Your task to perform on an android device: turn vacation reply on in the gmail app Image 0: 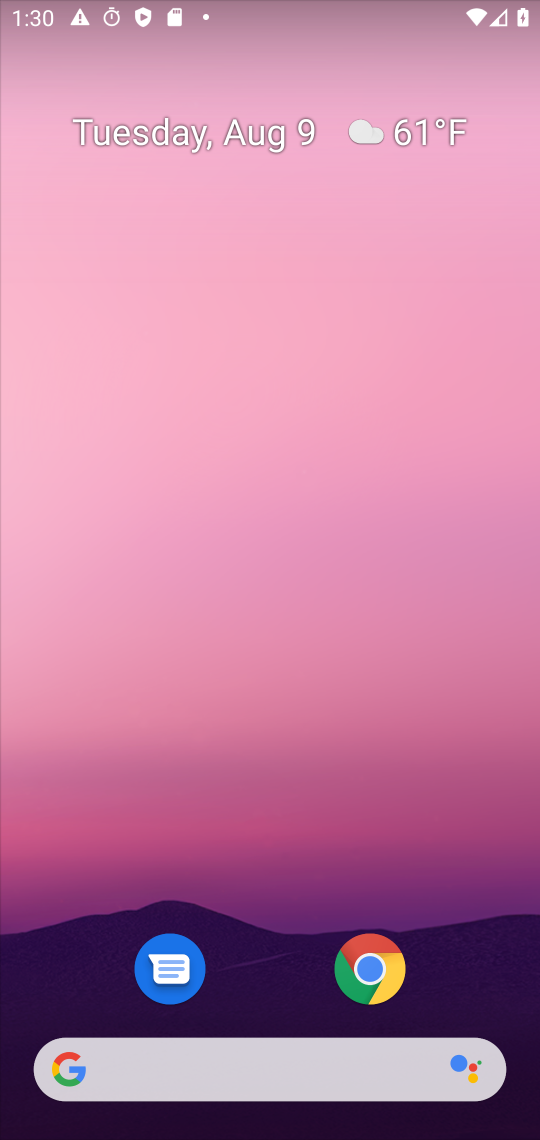
Step 0: press home button
Your task to perform on an android device: turn vacation reply on in the gmail app Image 1: 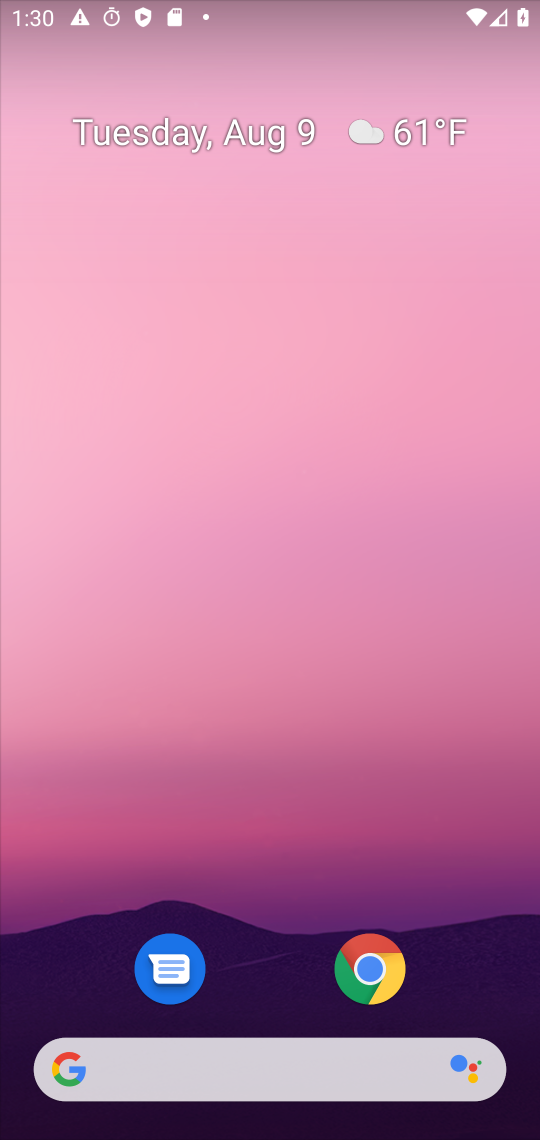
Step 1: drag from (328, 1101) to (188, 505)
Your task to perform on an android device: turn vacation reply on in the gmail app Image 2: 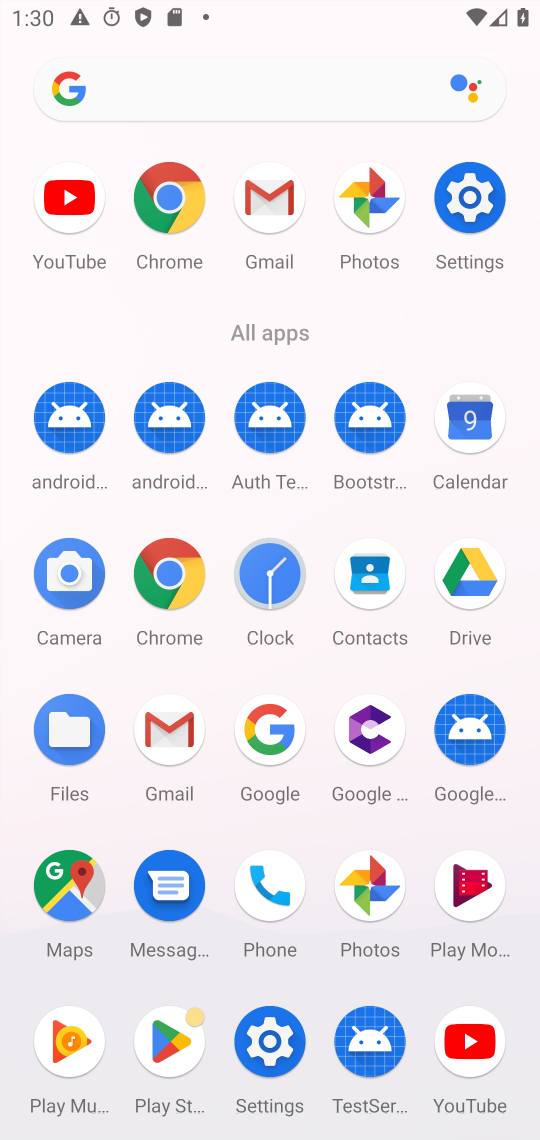
Step 2: click (265, 207)
Your task to perform on an android device: turn vacation reply on in the gmail app Image 3: 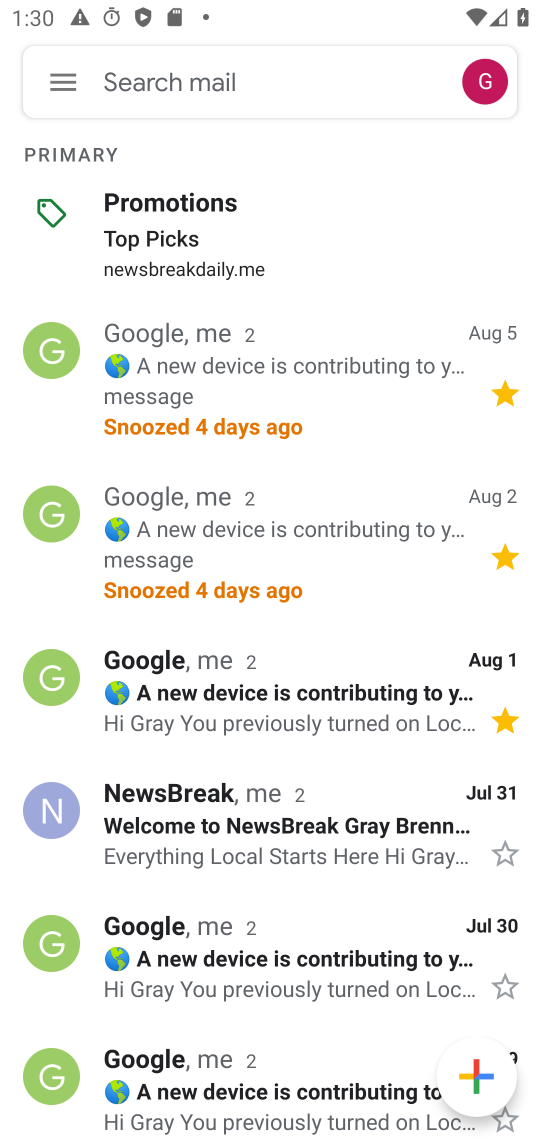
Step 3: click (67, 84)
Your task to perform on an android device: turn vacation reply on in the gmail app Image 4: 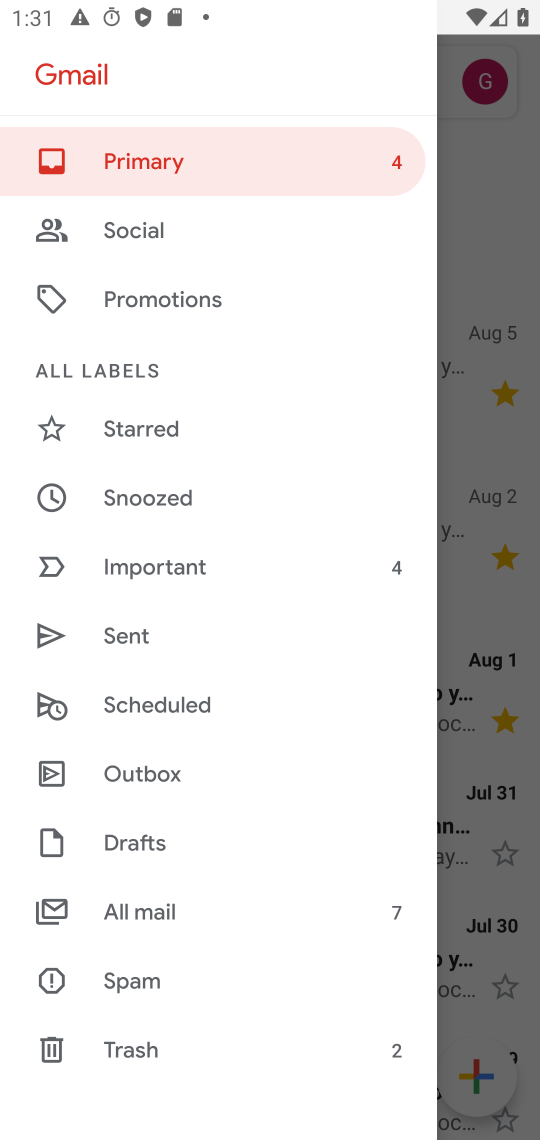
Step 4: drag from (152, 965) to (202, 785)
Your task to perform on an android device: turn vacation reply on in the gmail app Image 5: 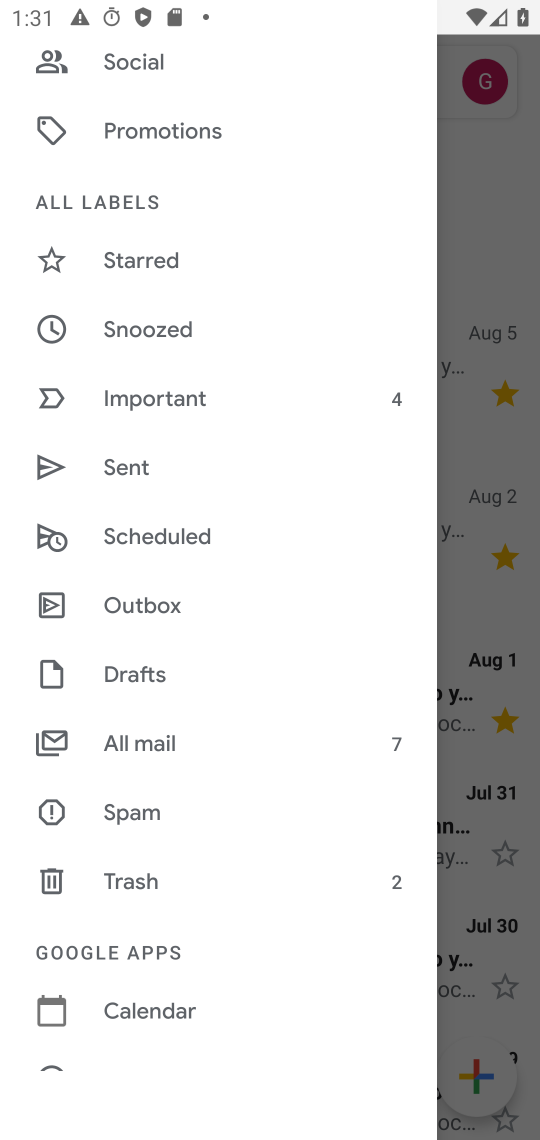
Step 5: drag from (117, 945) to (170, 761)
Your task to perform on an android device: turn vacation reply on in the gmail app Image 6: 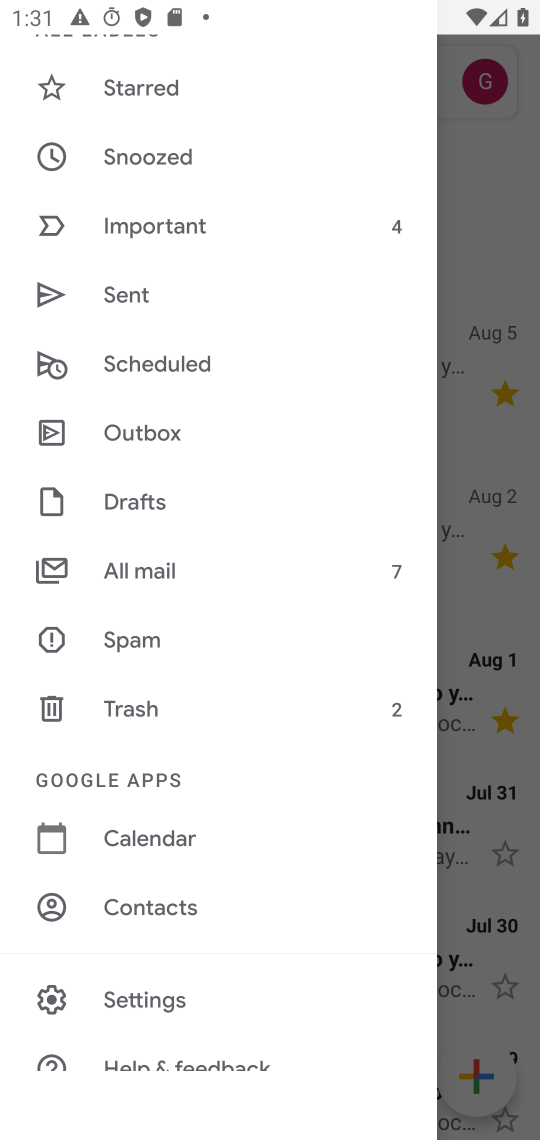
Step 6: click (132, 997)
Your task to perform on an android device: turn vacation reply on in the gmail app Image 7: 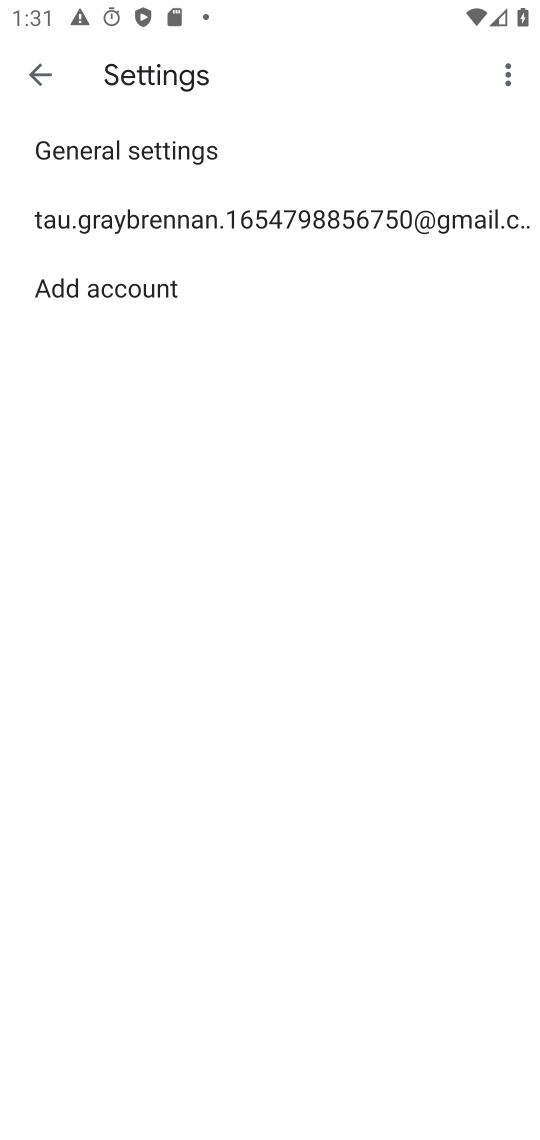
Step 7: click (161, 238)
Your task to perform on an android device: turn vacation reply on in the gmail app Image 8: 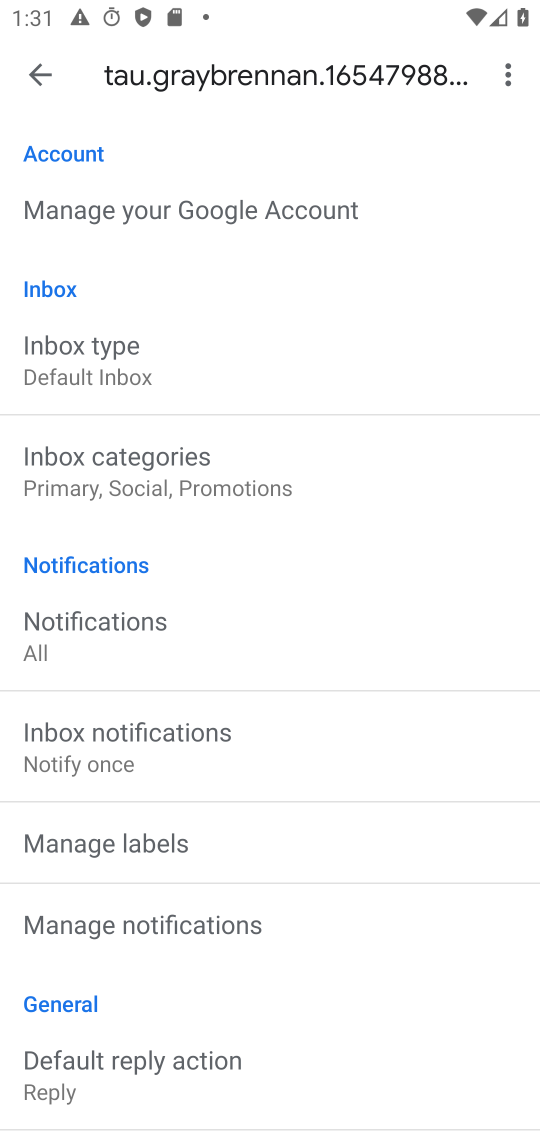
Step 8: drag from (322, 838) to (298, 459)
Your task to perform on an android device: turn vacation reply on in the gmail app Image 9: 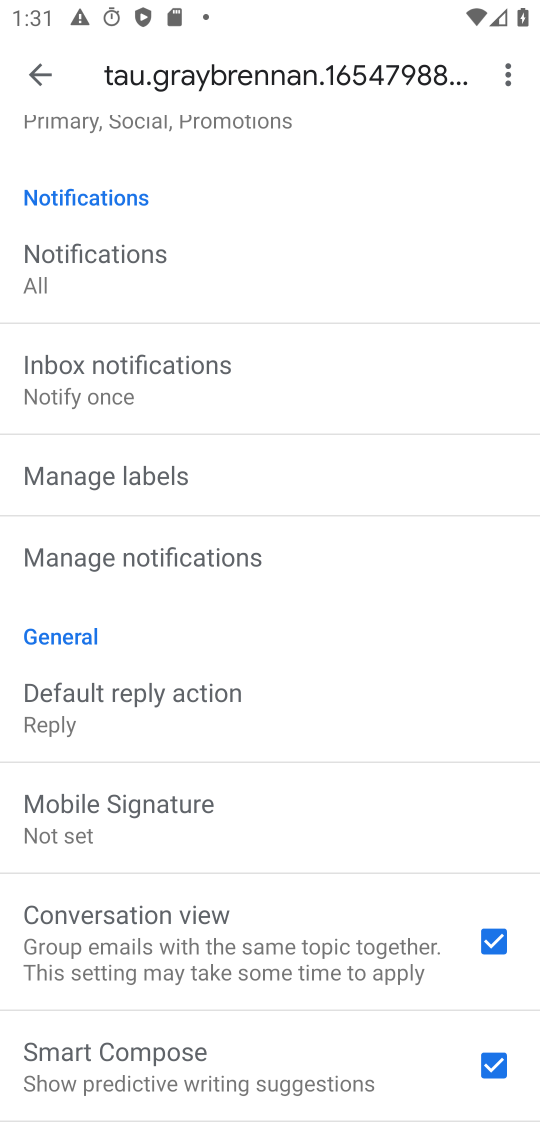
Step 9: drag from (303, 1002) to (188, 439)
Your task to perform on an android device: turn vacation reply on in the gmail app Image 10: 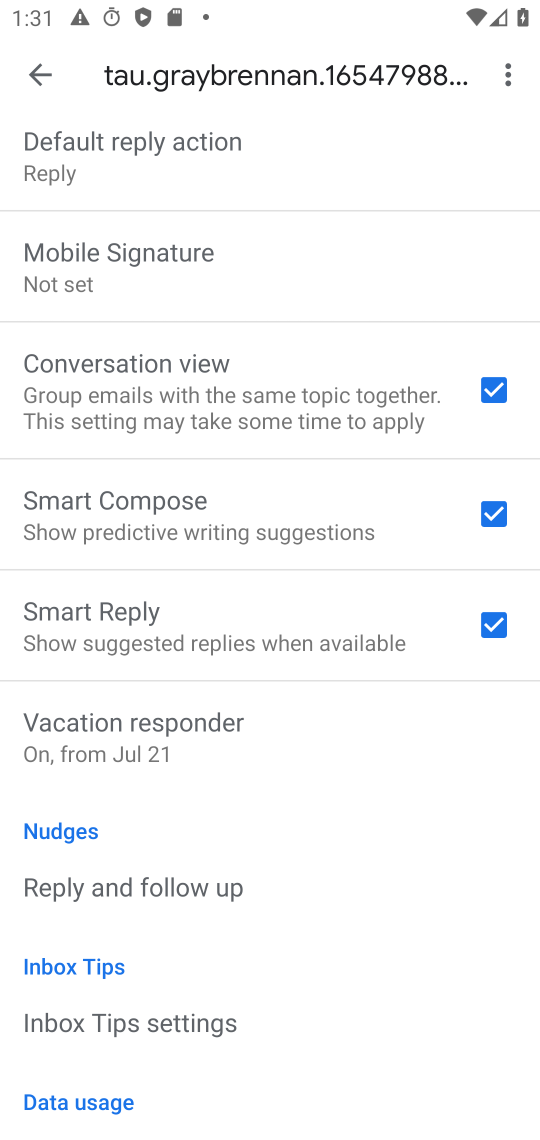
Step 10: click (150, 749)
Your task to perform on an android device: turn vacation reply on in the gmail app Image 11: 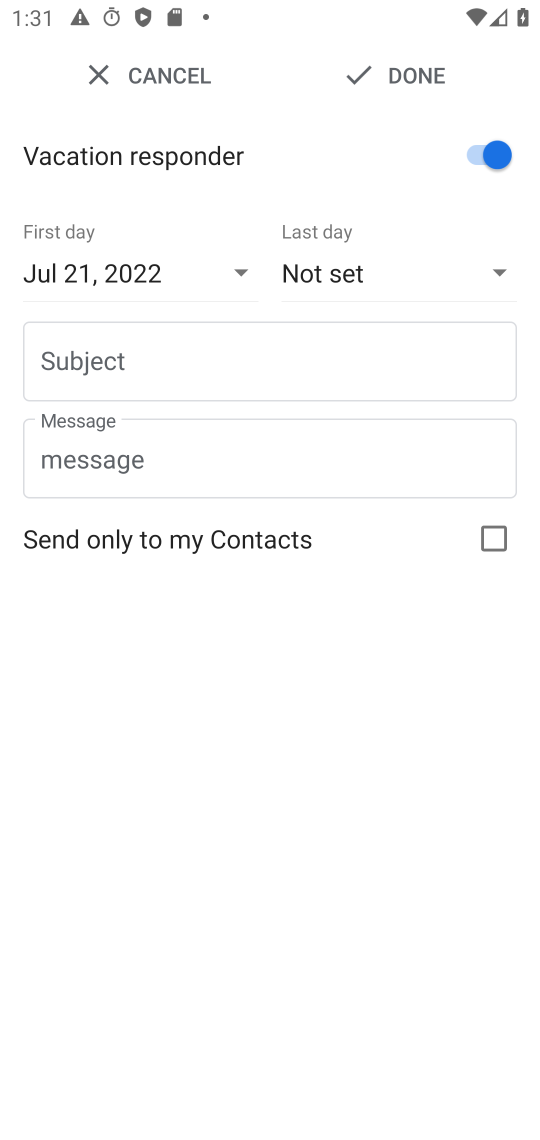
Step 11: task complete